Your task to perform on an android device: Open maps Image 0: 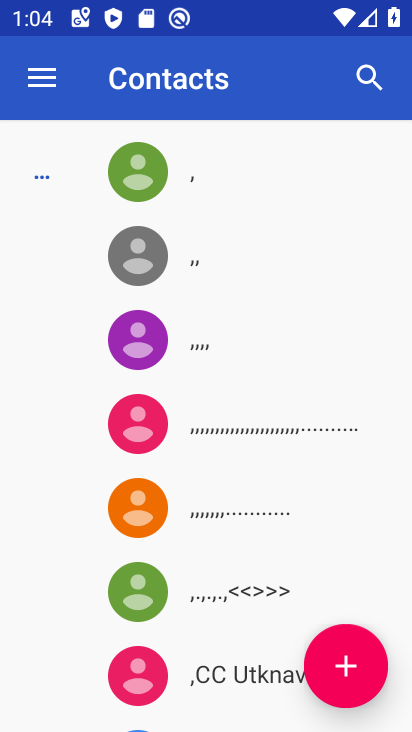
Step 0: press home button
Your task to perform on an android device: Open maps Image 1: 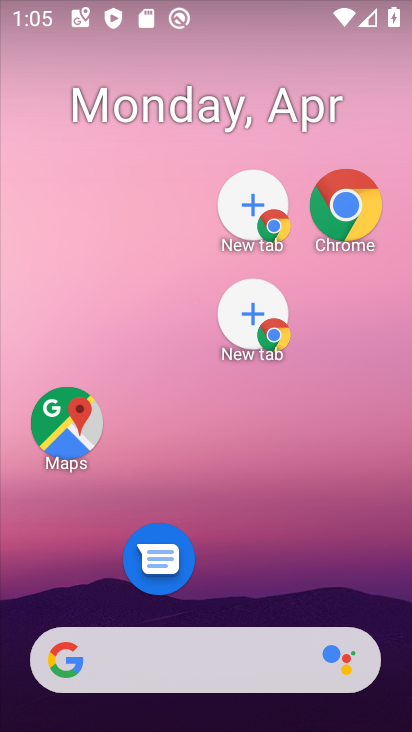
Step 1: click (75, 416)
Your task to perform on an android device: Open maps Image 2: 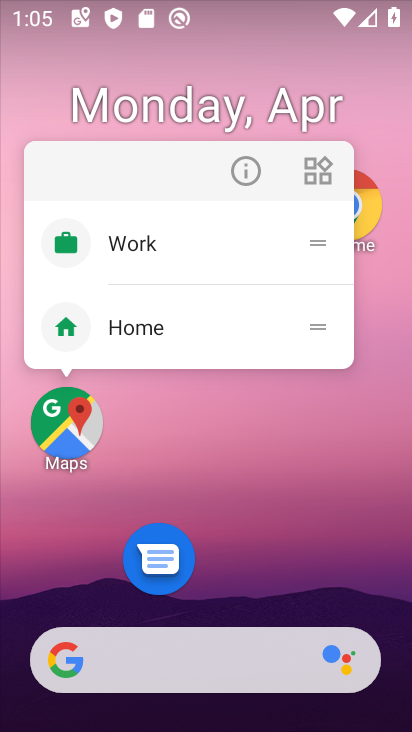
Step 2: click (241, 170)
Your task to perform on an android device: Open maps Image 3: 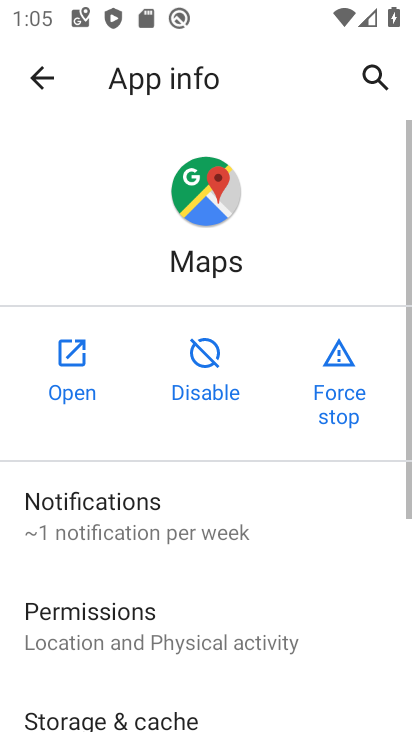
Step 3: click (70, 379)
Your task to perform on an android device: Open maps Image 4: 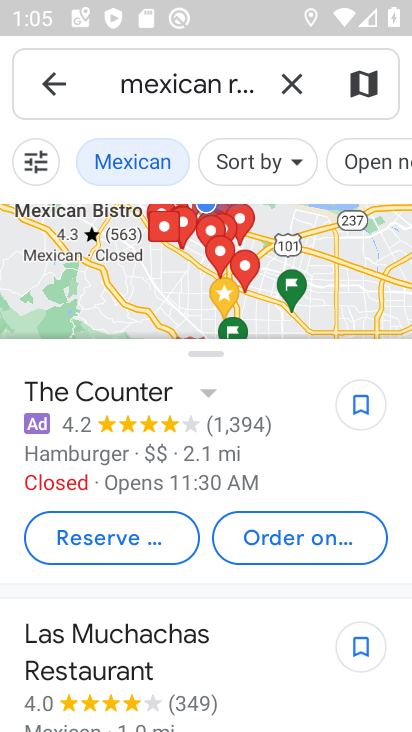
Step 4: task complete